Your task to perform on an android device: Go to wifi settings Image 0: 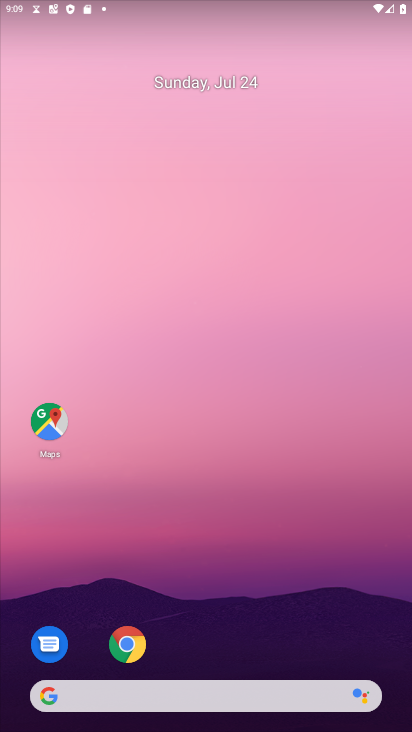
Step 0: drag from (260, 8) to (203, 483)
Your task to perform on an android device: Go to wifi settings Image 1: 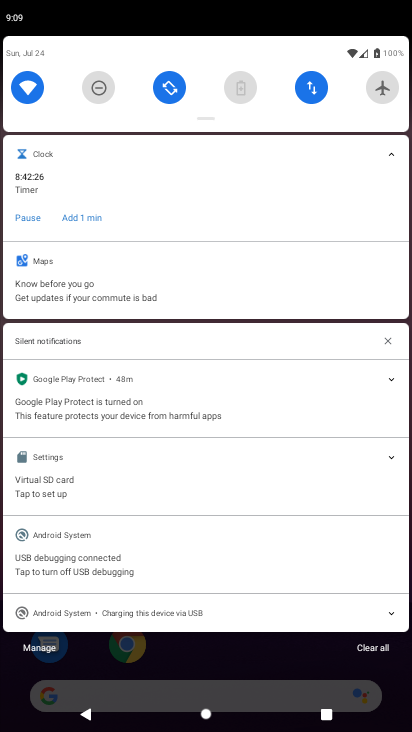
Step 1: click (13, 84)
Your task to perform on an android device: Go to wifi settings Image 2: 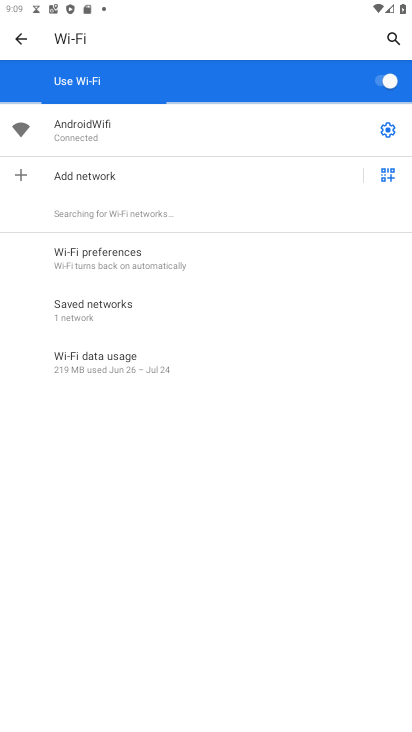
Step 2: task complete